Your task to perform on an android device: Open Reddit.com Image 0: 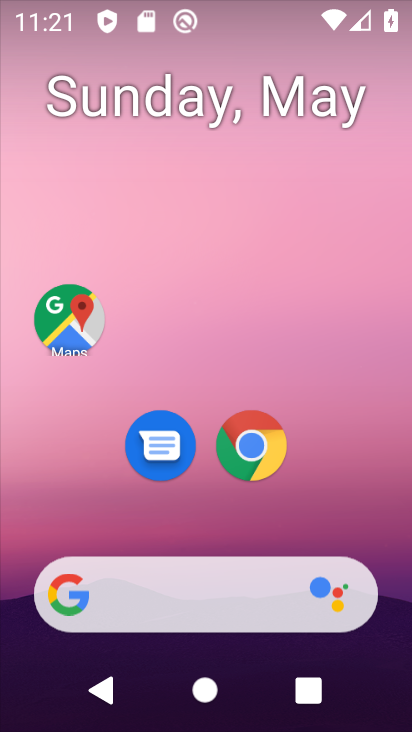
Step 0: click (250, 439)
Your task to perform on an android device: Open Reddit.com Image 1: 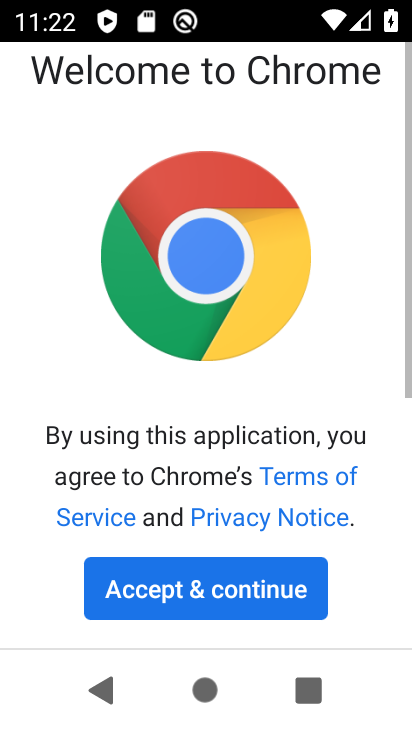
Step 1: click (196, 592)
Your task to perform on an android device: Open Reddit.com Image 2: 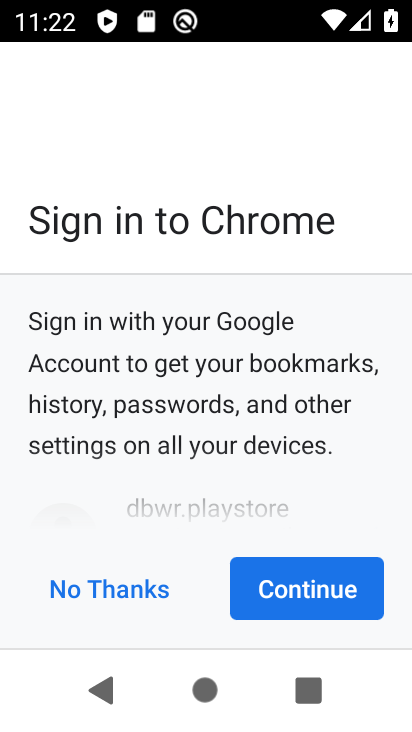
Step 2: click (313, 593)
Your task to perform on an android device: Open Reddit.com Image 3: 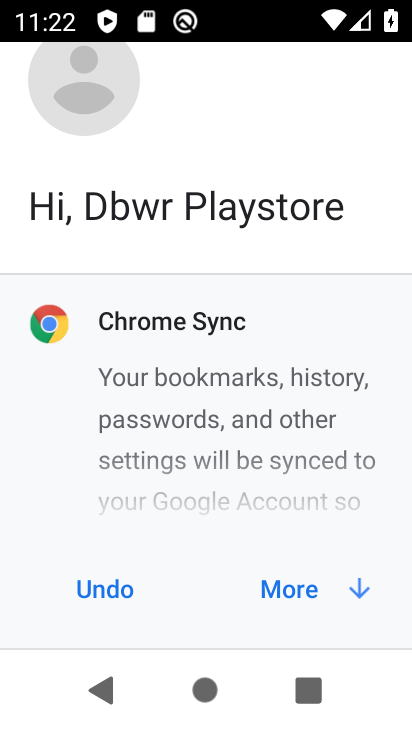
Step 3: click (313, 593)
Your task to perform on an android device: Open Reddit.com Image 4: 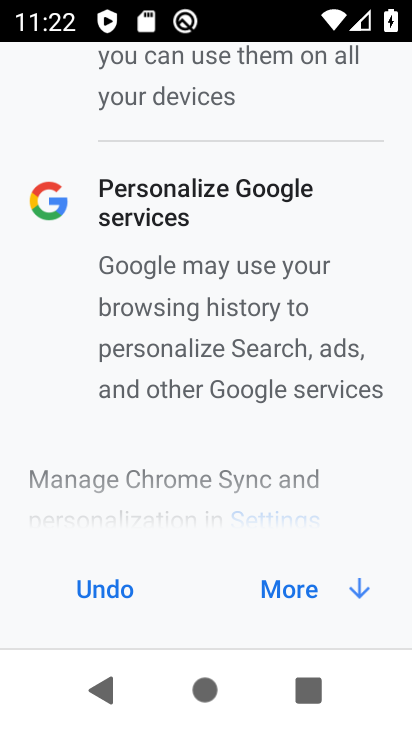
Step 4: click (313, 593)
Your task to perform on an android device: Open Reddit.com Image 5: 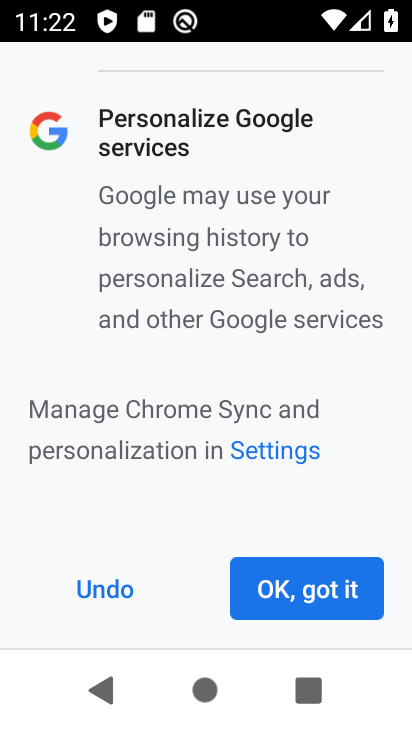
Step 5: click (313, 593)
Your task to perform on an android device: Open Reddit.com Image 6: 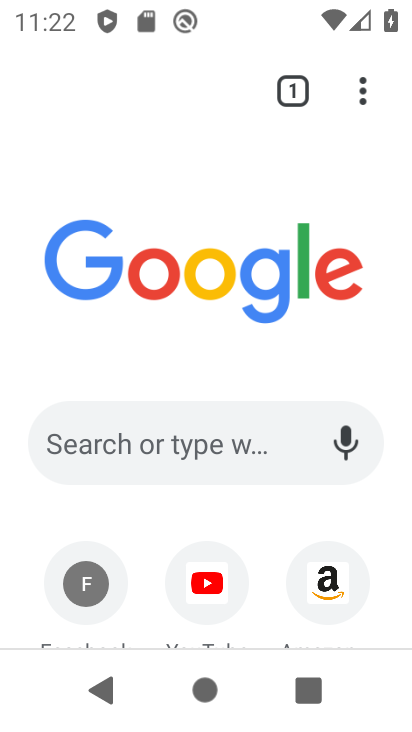
Step 6: click (114, 445)
Your task to perform on an android device: Open Reddit.com Image 7: 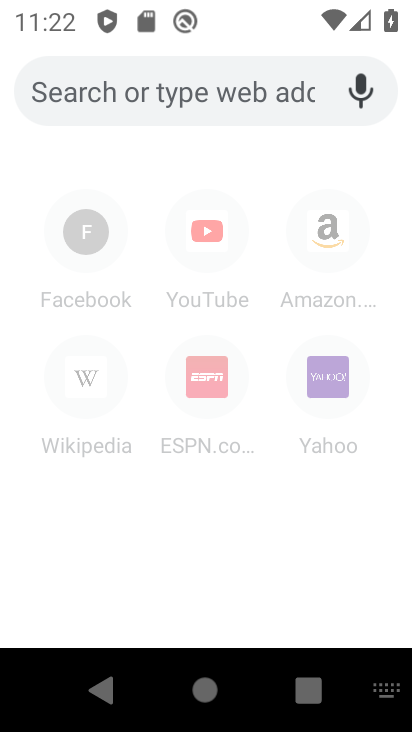
Step 7: type "reddit"
Your task to perform on an android device: Open Reddit.com Image 8: 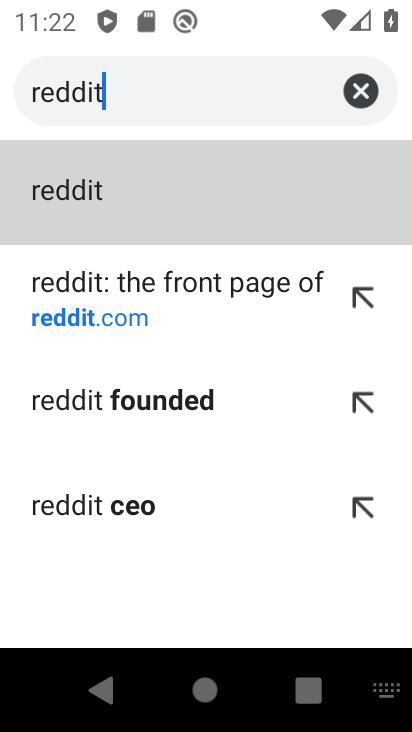
Step 8: click (157, 310)
Your task to perform on an android device: Open Reddit.com Image 9: 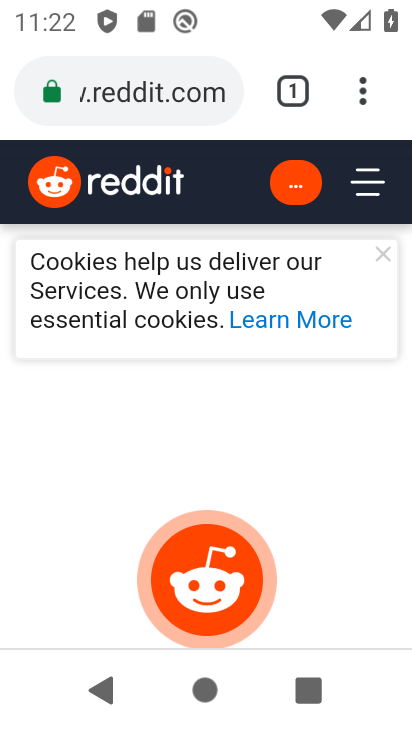
Step 9: task complete